Your task to perform on an android device: change notification settings in the gmail app Image 0: 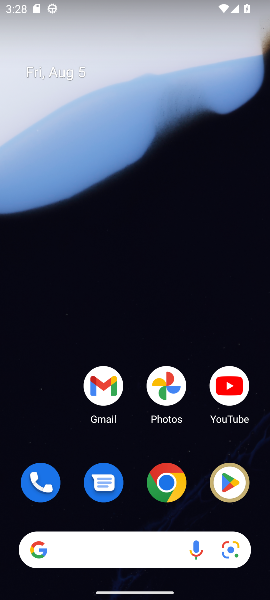
Step 0: press home button
Your task to perform on an android device: change notification settings in the gmail app Image 1: 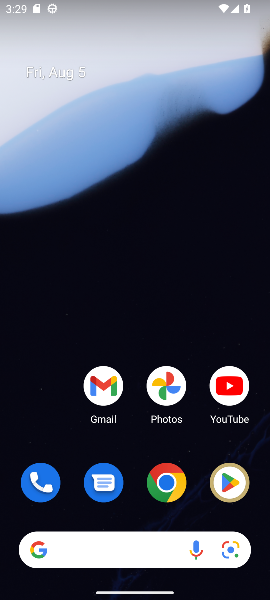
Step 1: click (102, 380)
Your task to perform on an android device: change notification settings in the gmail app Image 2: 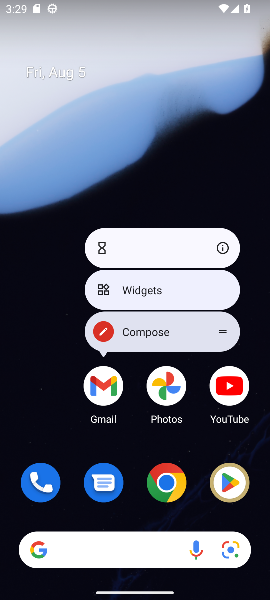
Step 2: click (102, 381)
Your task to perform on an android device: change notification settings in the gmail app Image 3: 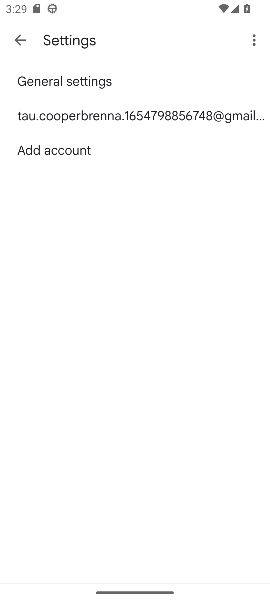
Step 3: click (85, 80)
Your task to perform on an android device: change notification settings in the gmail app Image 4: 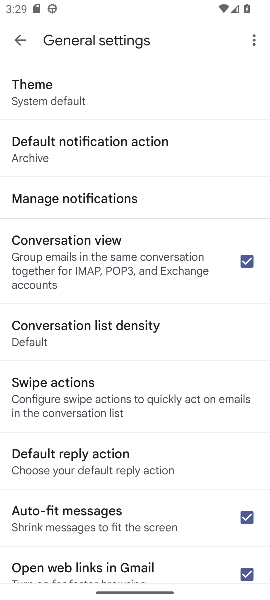
Step 4: click (115, 196)
Your task to perform on an android device: change notification settings in the gmail app Image 5: 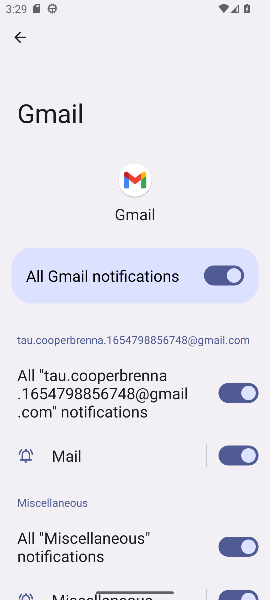
Step 5: click (220, 272)
Your task to perform on an android device: change notification settings in the gmail app Image 6: 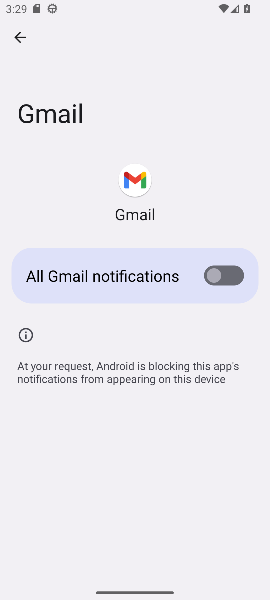
Step 6: task complete